Your task to perform on an android device: Open the map Image 0: 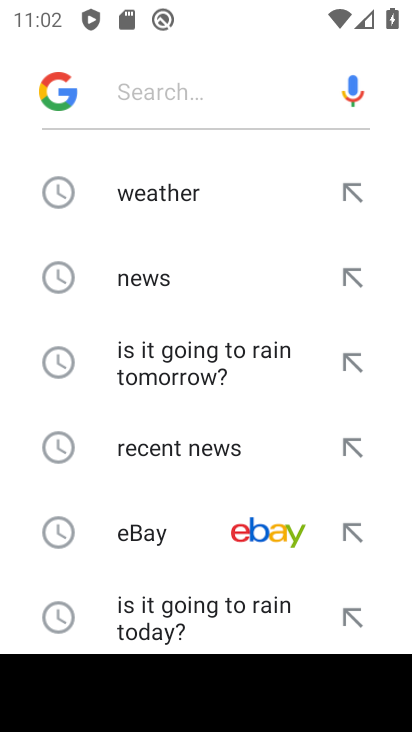
Step 0: press back button
Your task to perform on an android device: Open the map Image 1: 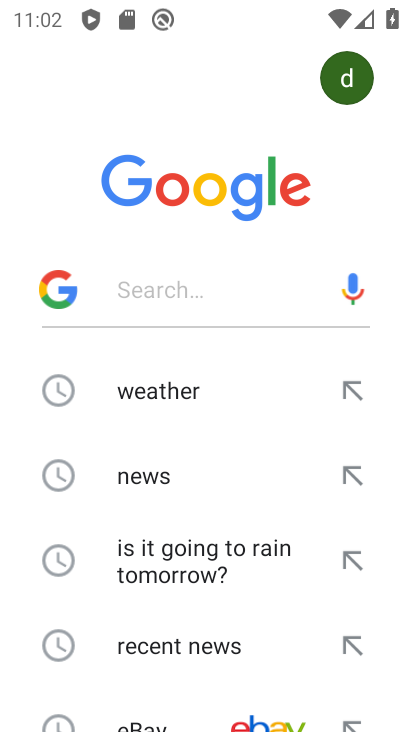
Step 1: press back button
Your task to perform on an android device: Open the map Image 2: 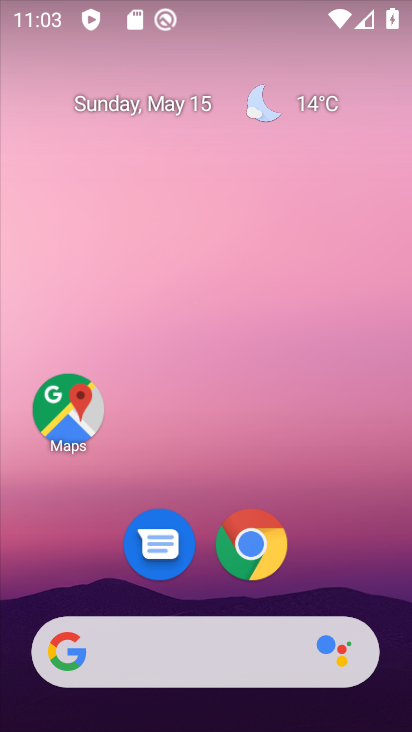
Step 2: click (69, 404)
Your task to perform on an android device: Open the map Image 3: 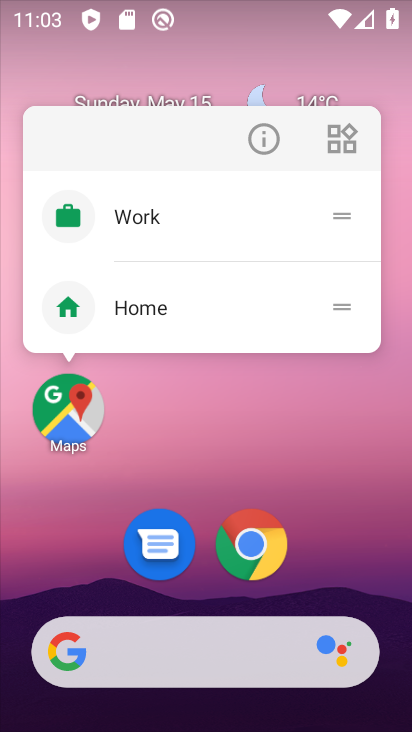
Step 3: click (81, 395)
Your task to perform on an android device: Open the map Image 4: 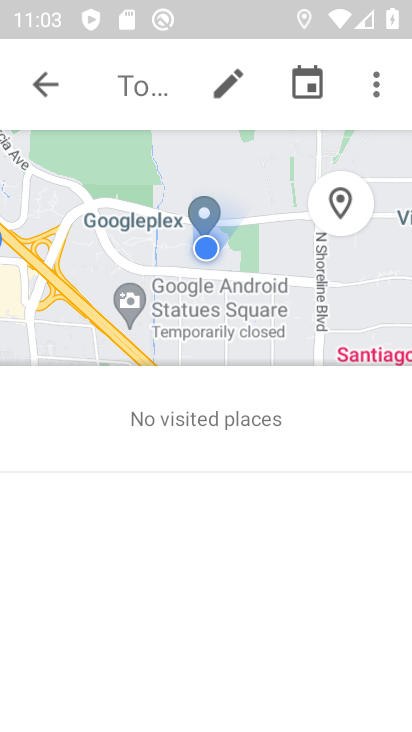
Step 4: click (40, 445)
Your task to perform on an android device: Open the map Image 5: 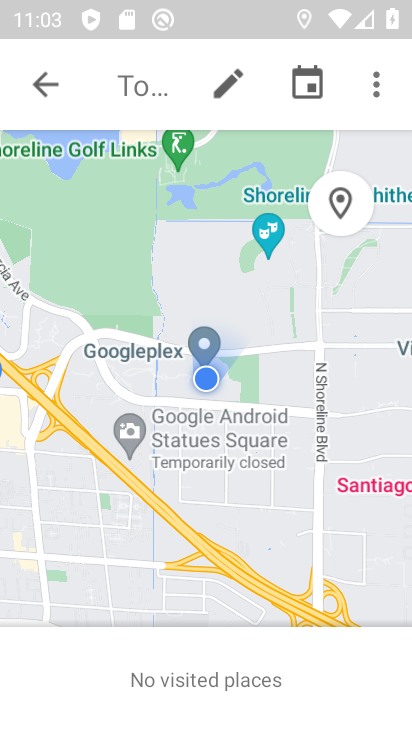
Step 5: task complete